Your task to perform on an android device: open app "Google Calendar" Image 0: 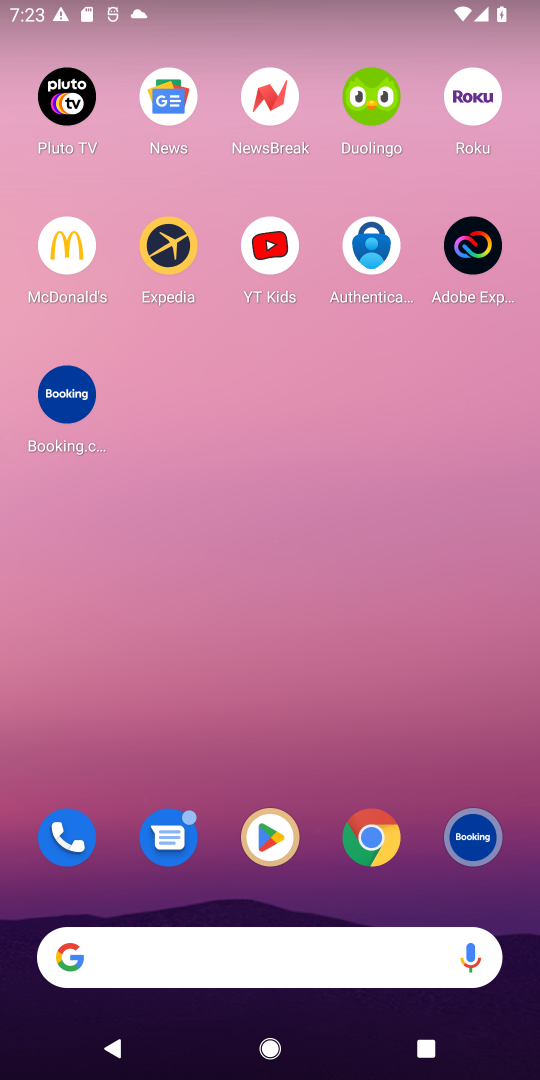
Step 0: drag from (250, 701) to (329, 40)
Your task to perform on an android device: open app "Google Calendar" Image 1: 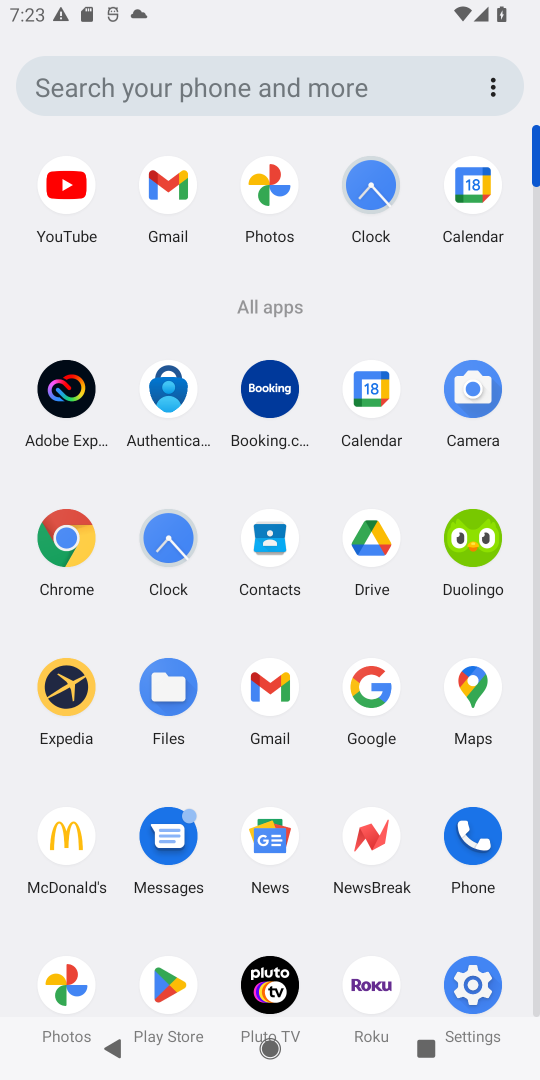
Step 1: click (175, 973)
Your task to perform on an android device: open app "Google Calendar" Image 2: 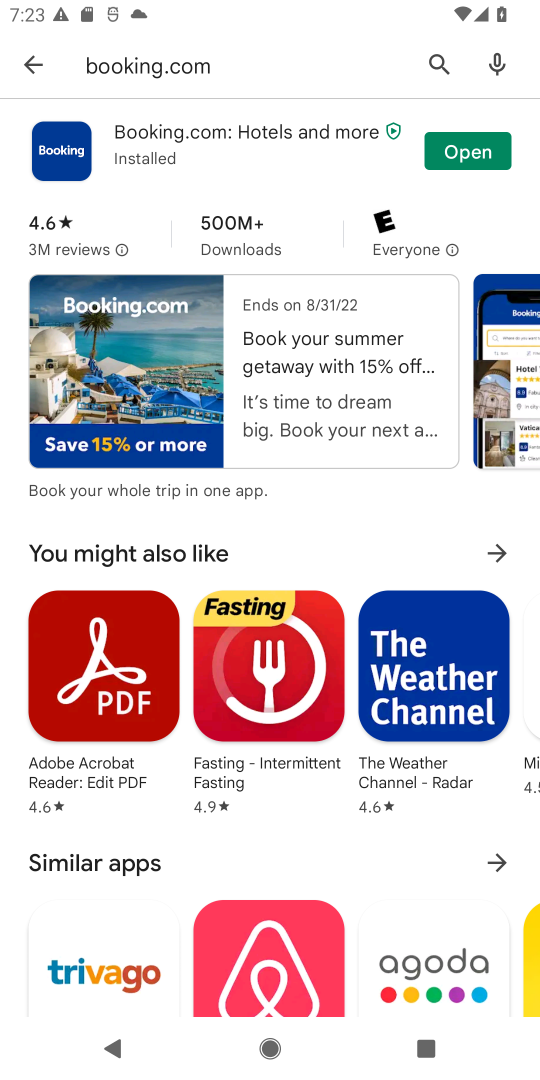
Step 2: click (150, 66)
Your task to perform on an android device: open app "Google Calendar" Image 3: 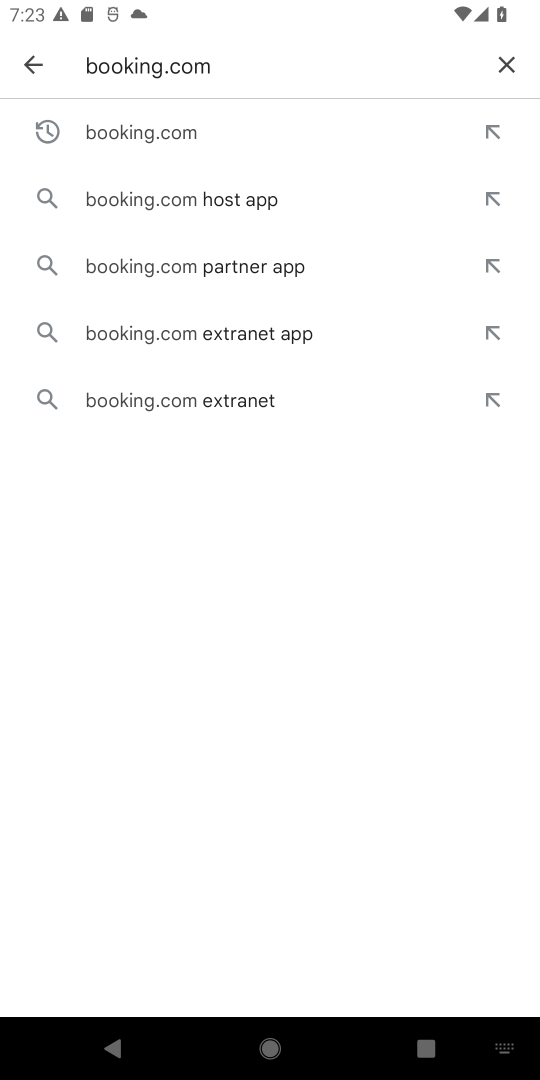
Step 3: click (500, 62)
Your task to perform on an android device: open app "Google Calendar" Image 4: 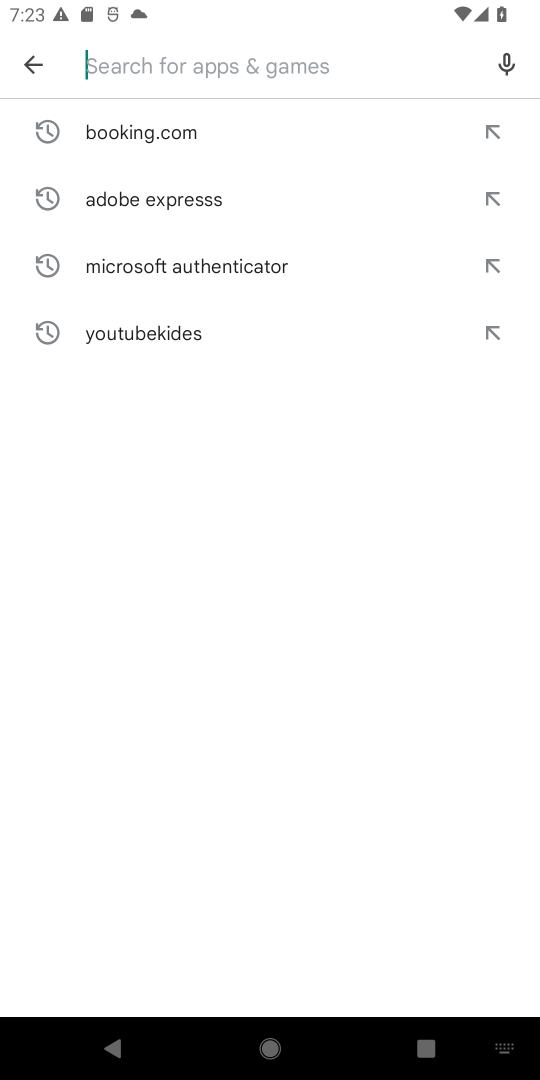
Step 4: type "google calender"
Your task to perform on an android device: open app "Google Calendar" Image 5: 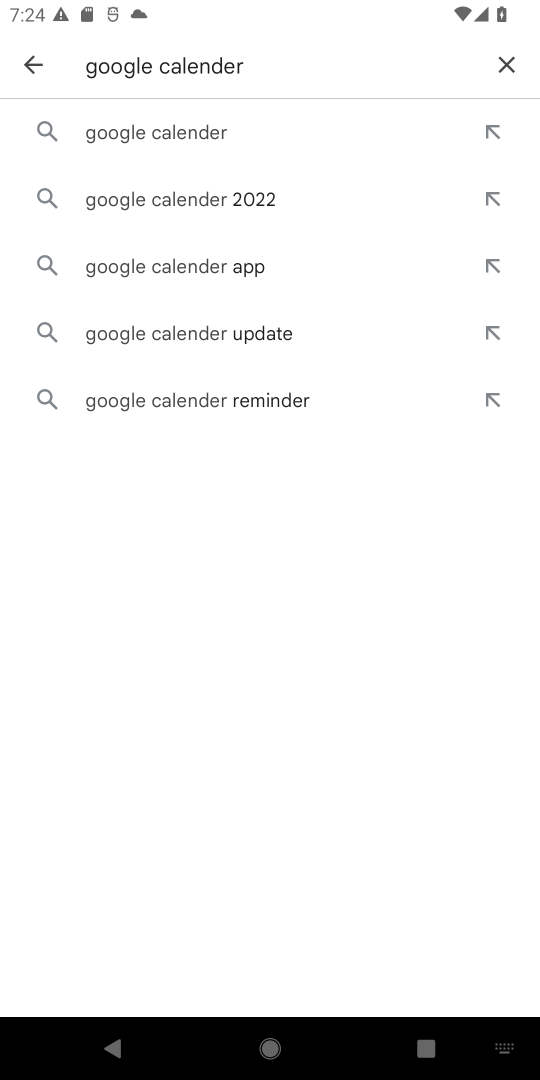
Step 5: click (180, 145)
Your task to perform on an android device: open app "Google Calendar" Image 6: 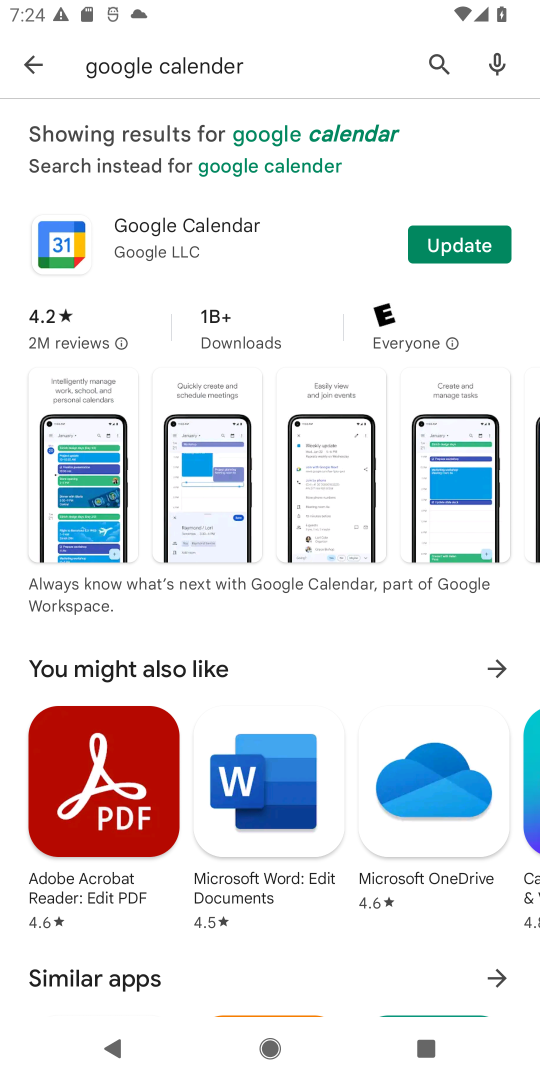
Step 6: click (486, 250)
Your task to perform on an android device: open app "Google Calendar" Image 7: 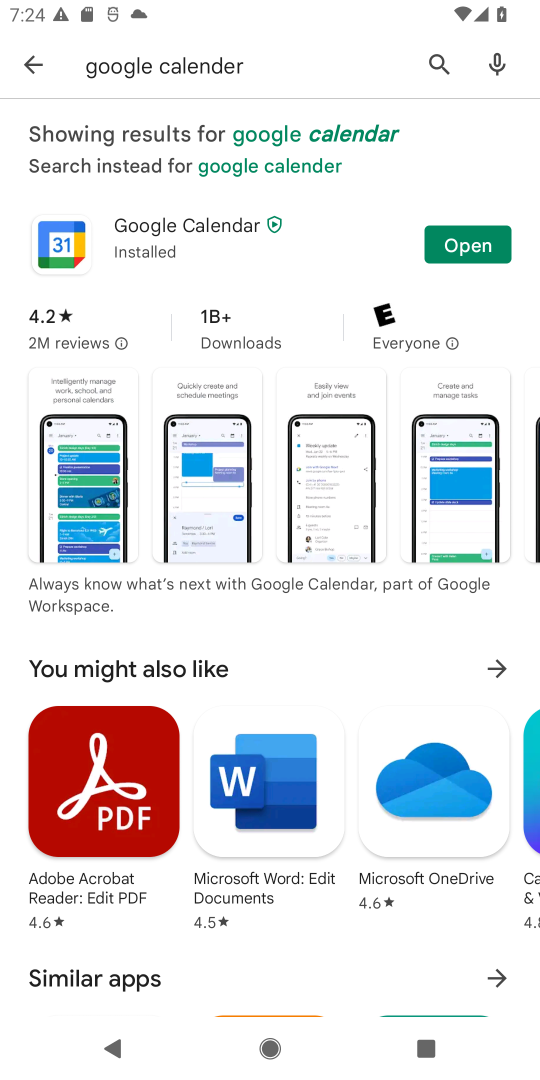
Step 7: click (459, 248)
Your task to perform on an android device: open app "Google Calendar" Image 8: 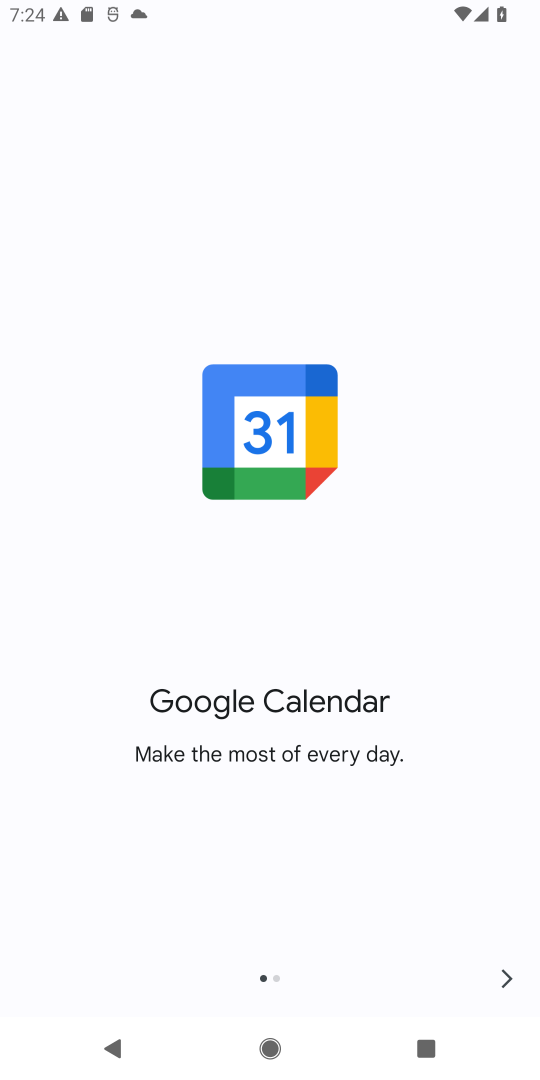
Step 8: click (504, 973)
Your task to perform on an android device: open app "Google Calendar" Image 9: 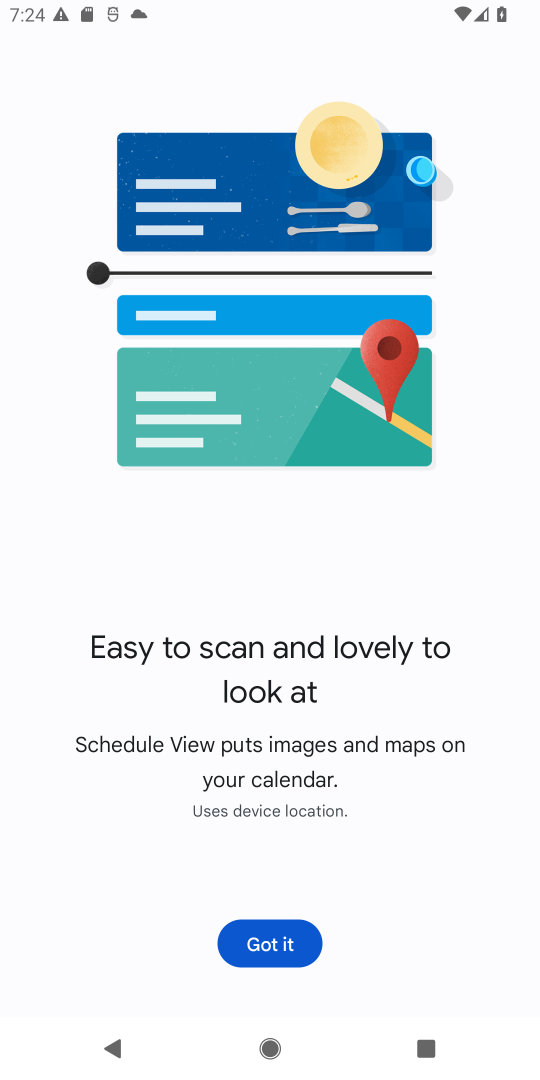
Step 9: click (300, 949)
Your task to perform on an android device: open app "Google Calendar" Image 10: 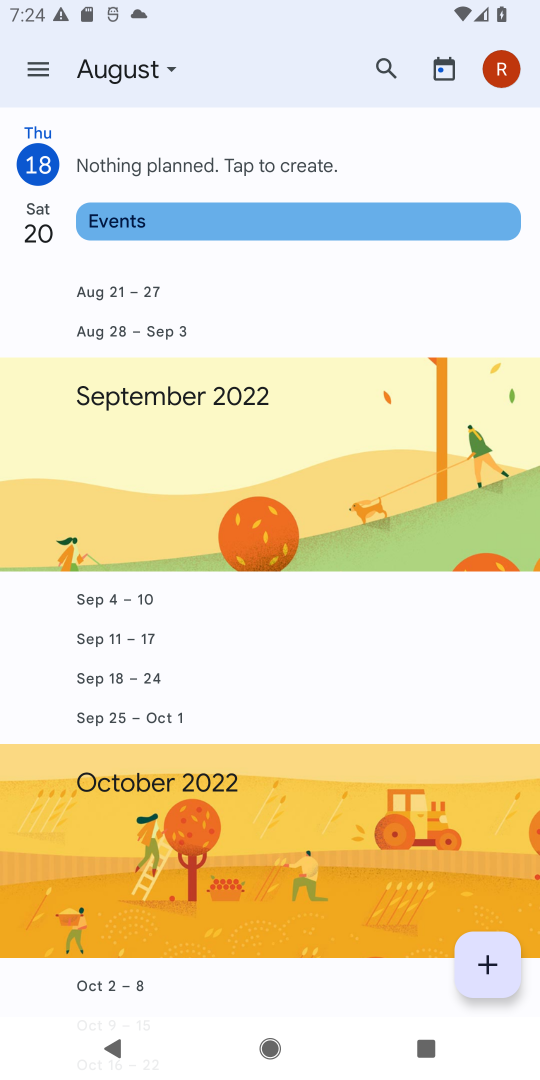
Step 10: task complete